Your task to perform on an android device: Is it going to rain today? Image 0: 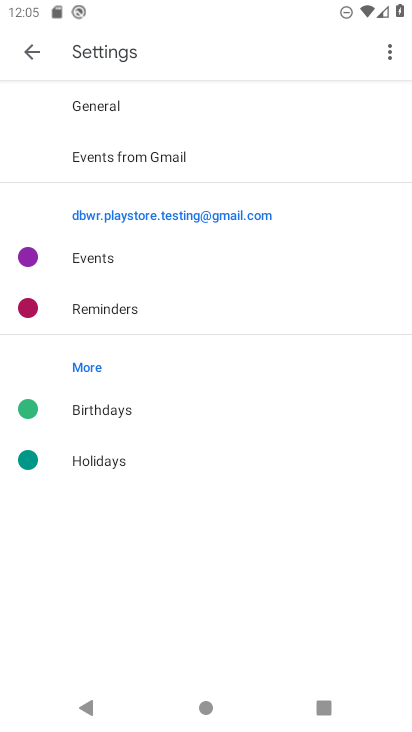
Step 0: press home button
Your task to perform on an android device: Is it going to rain today? Image 1: 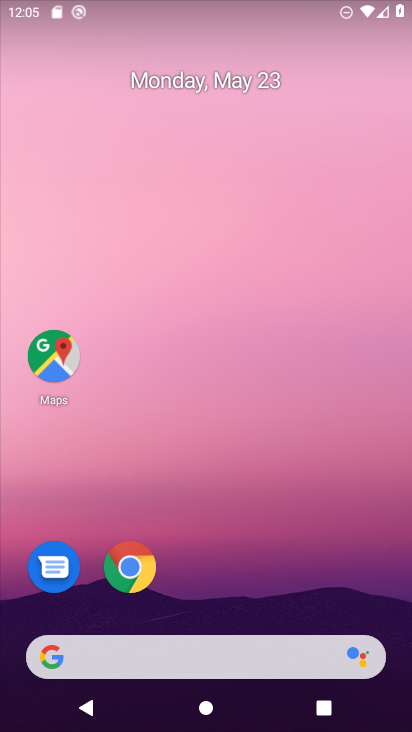
Step 1: click (227, 663)
Your task to perform on an android device: Is it going to rain today? Image 2: 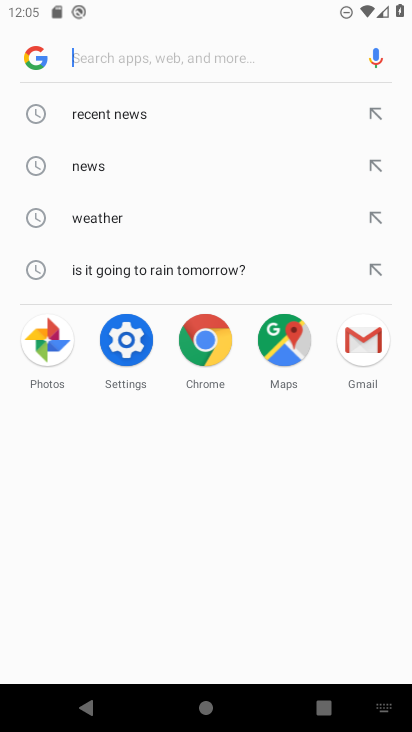
Step 2: click (133, 229)
Your task to perform on an android device: Is it going to rain today? Image 3: 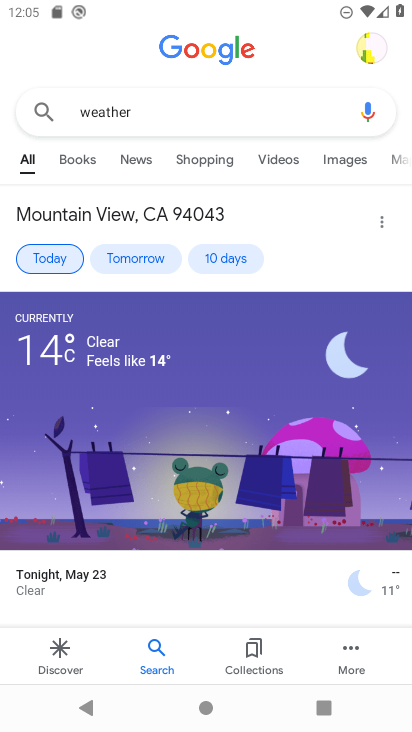
Step 3: task complete